Your task to perform on an android device: open sync settings in chrome Image 0: 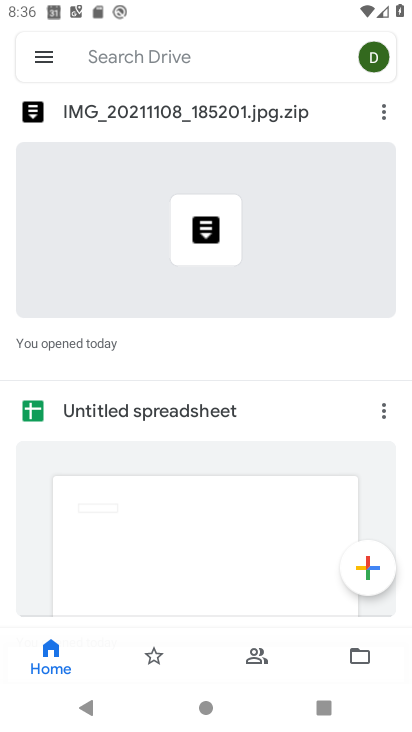
Step 0: press home button
Your task to perform on an android device: open sync settings in chrome Image 1: 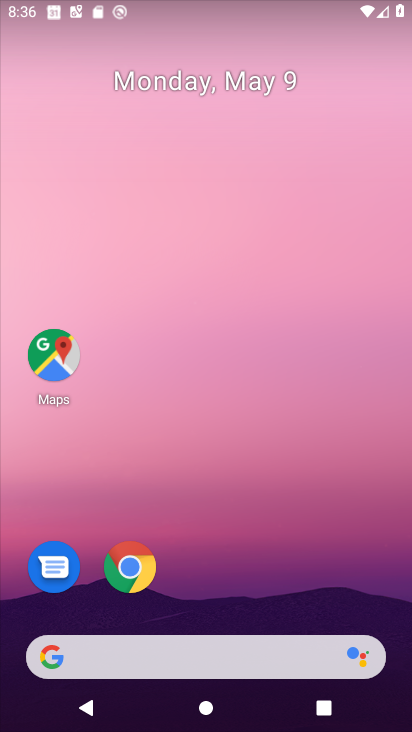
Step 1: drag from (199, 626) to (269, 95)
Your task to perform on an android device: open sync settings in chrome Image 2: 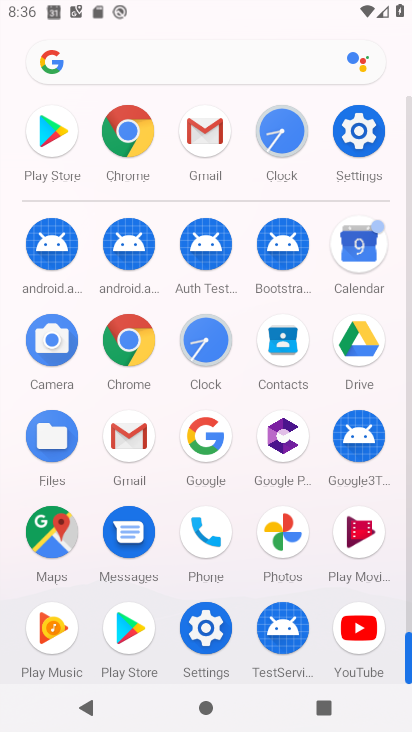
Step 2: click (130, 336)
Your task to perform on an android device: open sync settings in chrome Image 3: 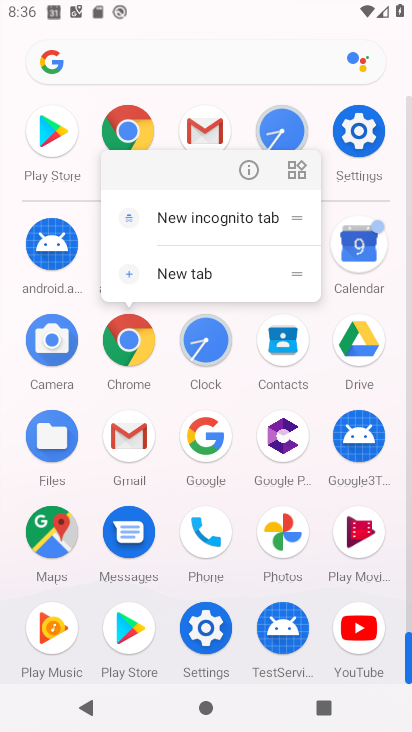
Step 3: click (246, 175)
Your task to perform on an android device: open sync settings in chrome Image 4: 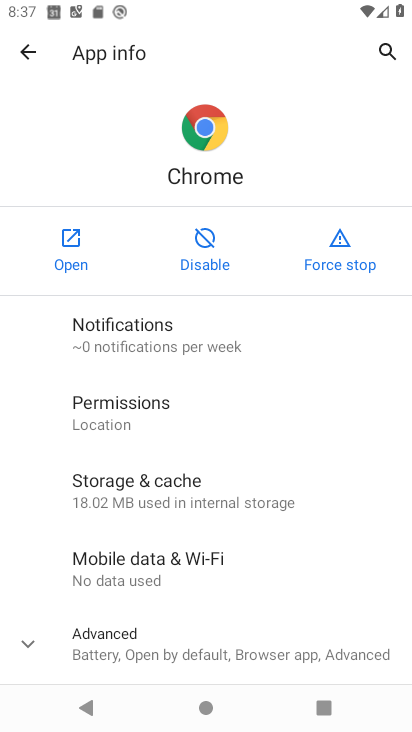
Step 4: click (63, 246)
Your task to perform on an android device: open sync settings in chrome Image 5: 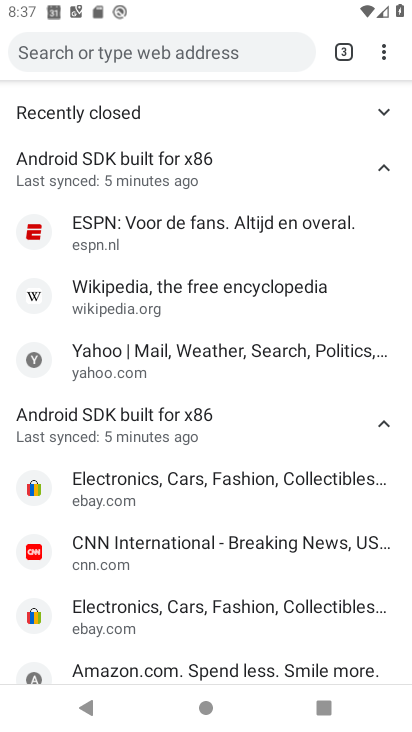
Step 5: drag from (393, 54) to (227, 437)
Your task to perform on an android device: open sync settings in chrome Image 6: 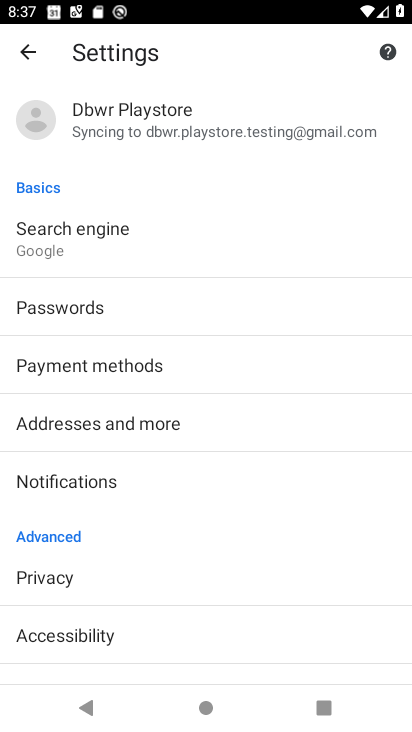
Step 6: drag from (143, 560) to (283, 110)
Your task to perform on an android device: open sync settings in chrome Image 7: 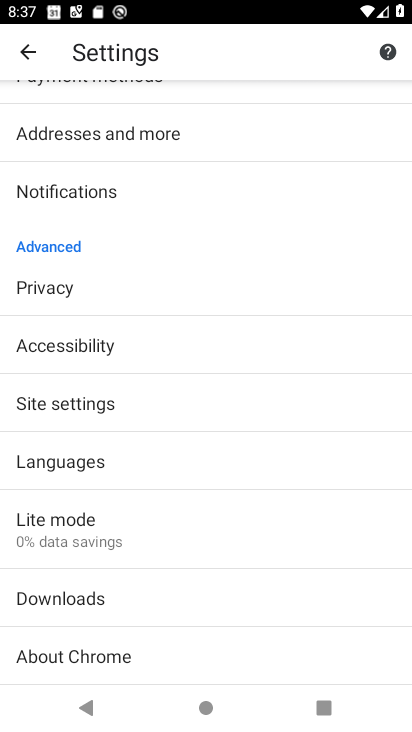
Step 7: click (129, 415)
Your task to perform on an android device: open sync settings in chrome Image 8: 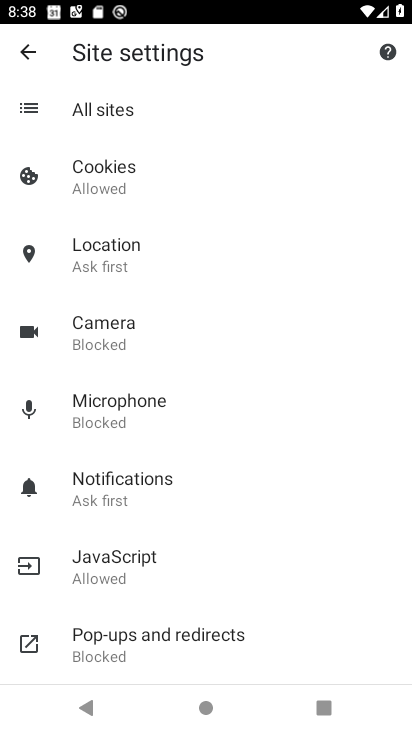
Step 8: drag from (195, 555) to (265, 230)
Your task to perform on an android device: open sync settings in chrome Image 9: 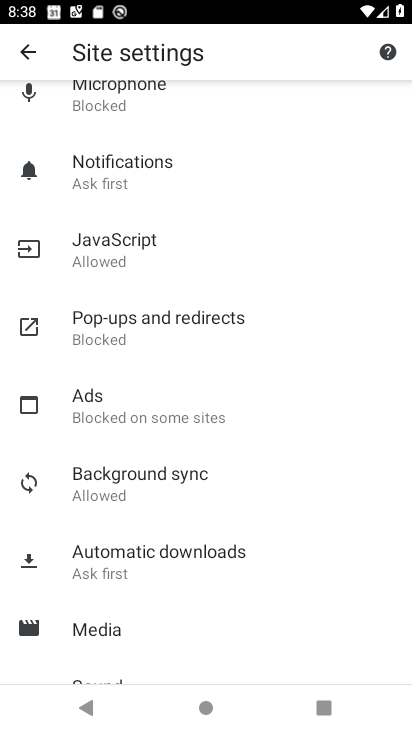
Step 9: click (103, 482)
Your task to perform on an android device: open sync settings in chrome Image 10: 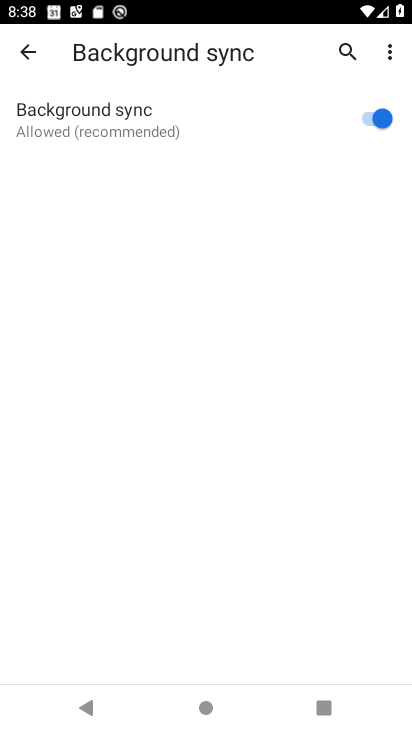
Step 10: task complete